Your task to perform on an android device: open sync settings in chrome Image 0: 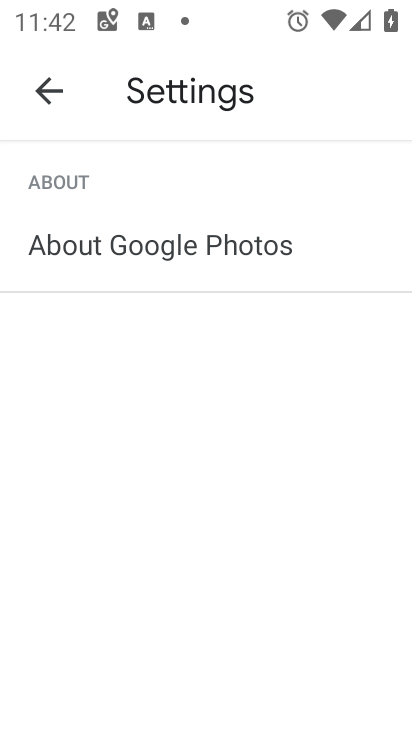
Step 0: press home button
Your task to perform on an android device: open sync settings in chrome Image 1: 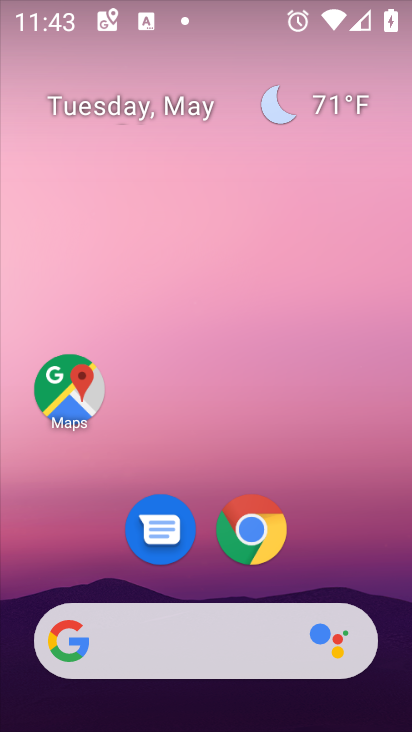
Step 1: drag from (155, 592) to (168, 184)
Your task to perform on an android device: open sync settings in chrome Image 2: 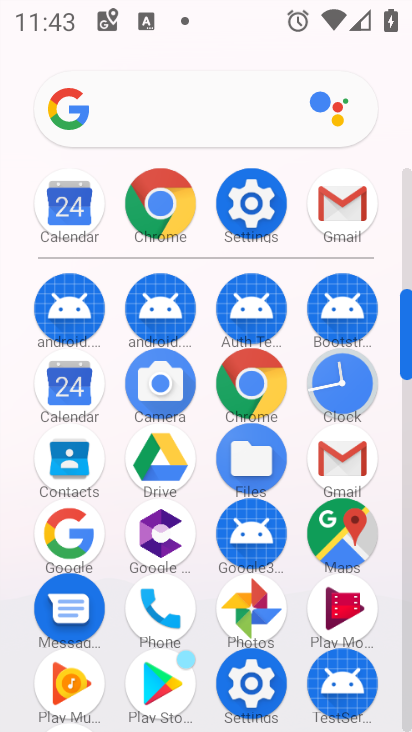
Step 2: click (177, 222)
Your task to perform on an android device: open sync settings in chrome Image 3: 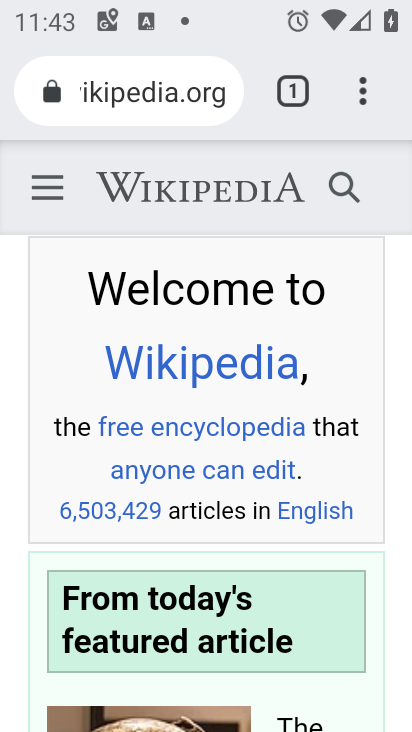
Step 3: click (364, 96)
Your task to perform on an android device: open sync settings in chrome Image 4: 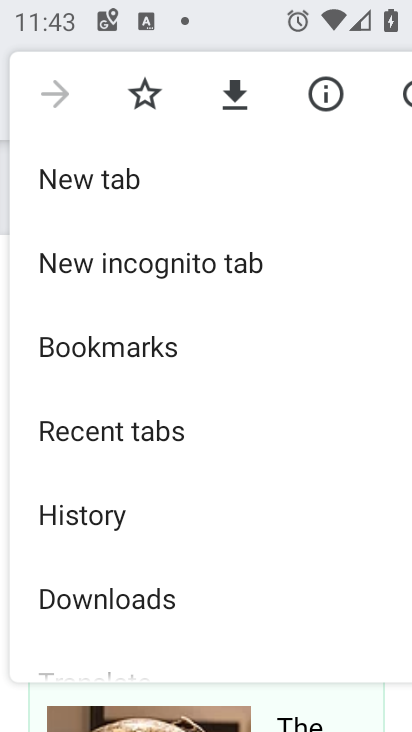
Step 4: drag from (177, 378) to (226, 142)
Your task to perform on an android device: open sync settings in chrome Image 5: 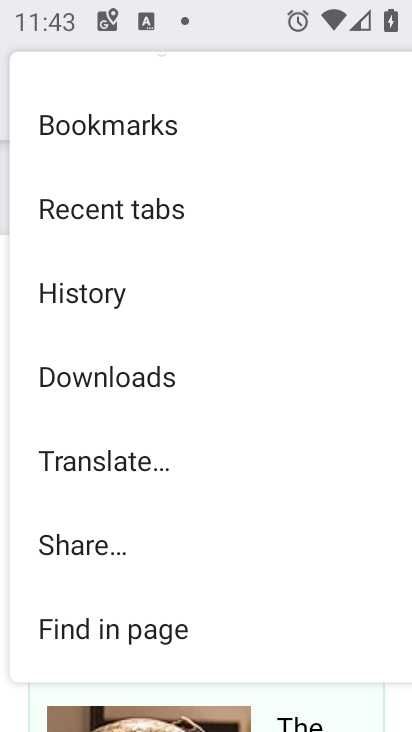
Step 5: drag from (157, 578) to (164, 348)
Your task to perform on an android device: open sync settings in chrome Image 6: 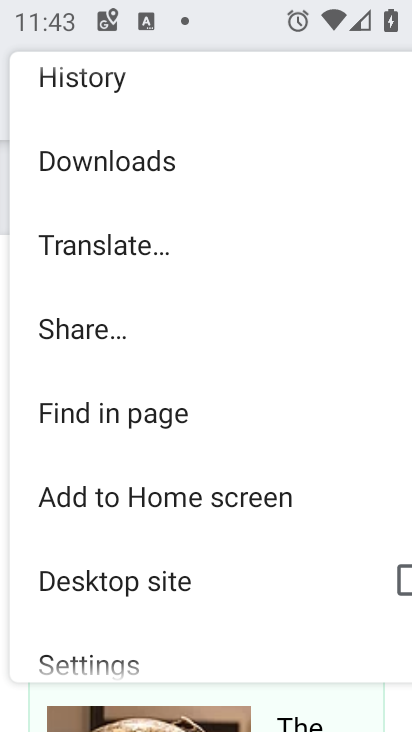
Step 6: drag from (199, 591) to (254, 382)
Your task to perform on an android device: open sync settings in chrome Image 7: 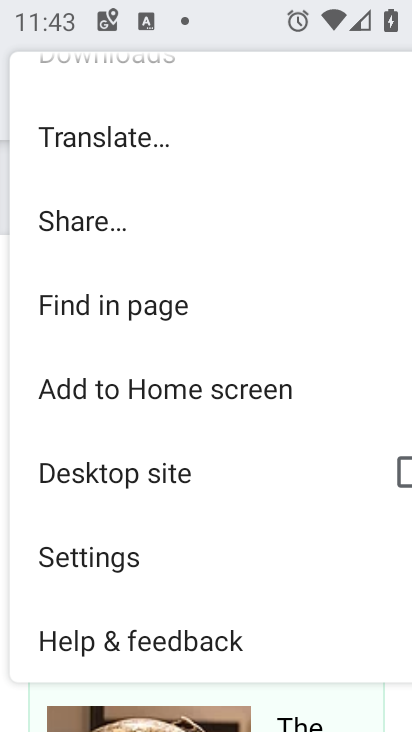
Step 7: click (130, 561)
Your task to perform on an android device: open sync settings in chrome Image 8: 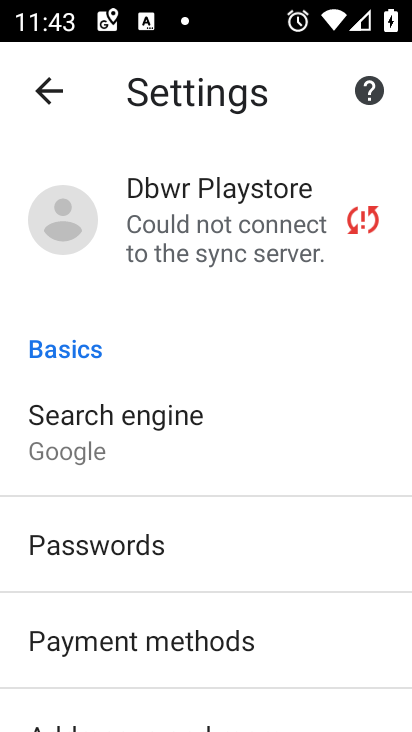
Step 8: click (251, 223)
Your task to perform on an android device: open sync settings in chrome Image 9: 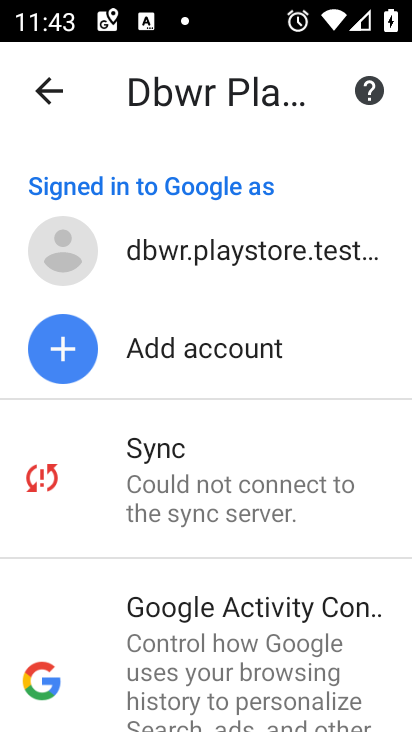
Step 9: click (175, 485)
Your task to perform on an android device: open sync settings in chrome Image 10: 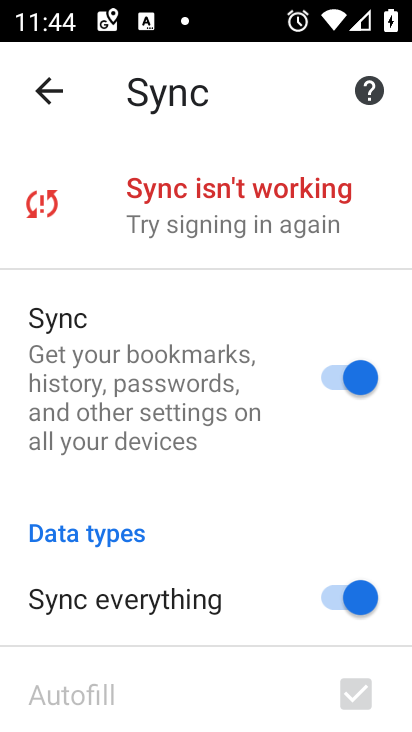
Step 10: task complete